Your task to perform on an android device: Clear the shopping cart on ebay.com. Search for "corsair k70" on ebay.com, select the first entry, add it to the cart, then select checkout. Image 0: 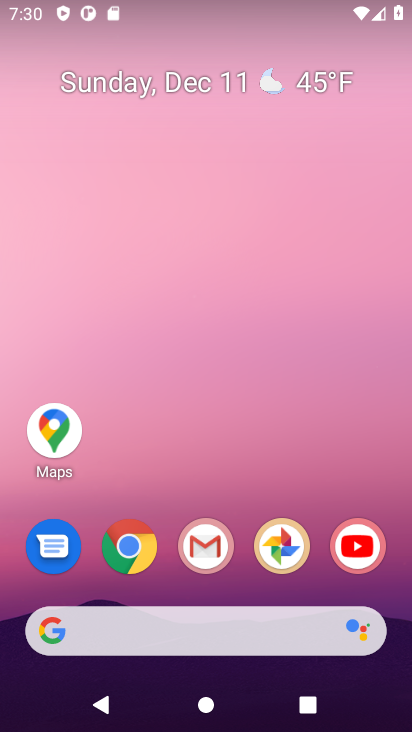
Step 0: click (134, 560)
Your task to perform on an android device: Clear the shopping cart on ebay.com. Search for "corsair k70" on ebay.com, select the first entry, add it to the cart, then select checkout. Image 1: 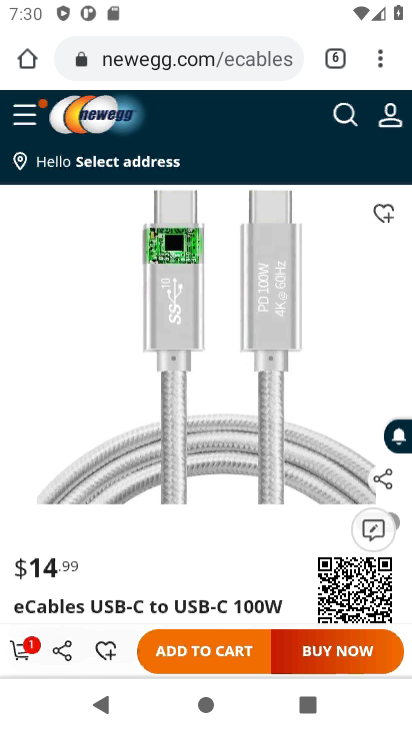
Step 1: click (257, 63)
Your task to perform on an android device: Clear the shopping cart on ebay.com. Search for "corsair k70" on ebay.com, select the first entry, add it to the cart, then select checkout. Image 2: 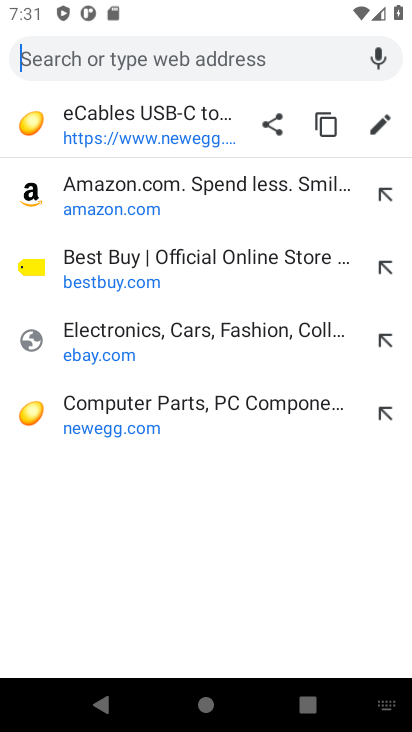
Step 2: click (153, 338)
Your task to perform on an android device: Clear the shopping cart on ebay.com. Search for "corsair k70" on ebay.com, select the first entry, add it to the cart, then select checkout. Image 3: 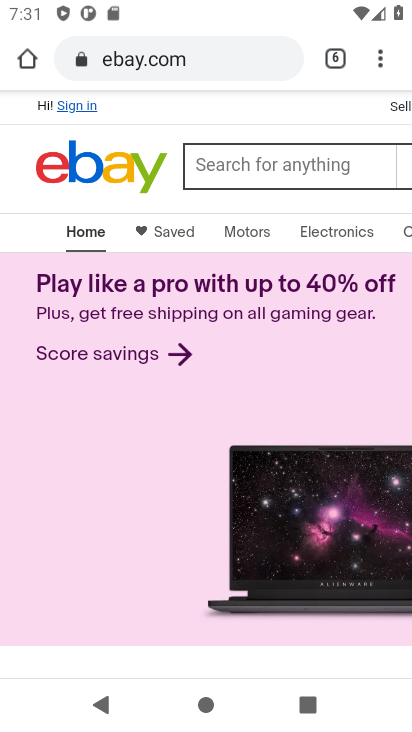
Step 3: drag from (360, 257) to (2, 261)
Your task to perform on an android device: Clear the shopping cart on ebay.com. Search for "corsair k70" on ebay.com, select the first entry, add it to the cart, then select checkout. Image 4: 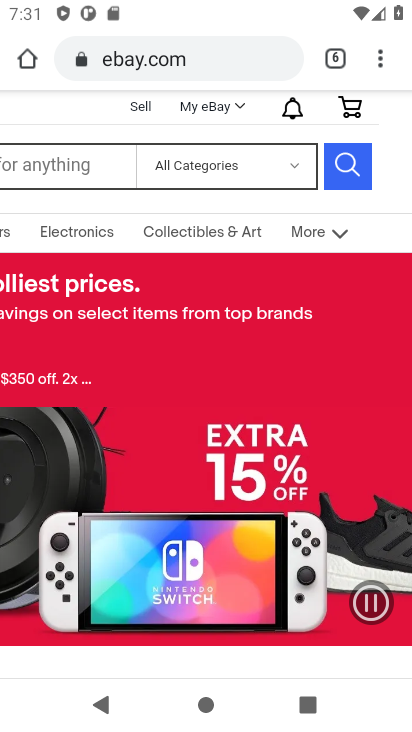
Step 4: click (348, 106)
Your task to perform on an android device: Clear the shopping cart on ebay.com. Search for "corsair k70" on ebay.com, select the first entry, add it to the cart, then select checkout. Image 5: 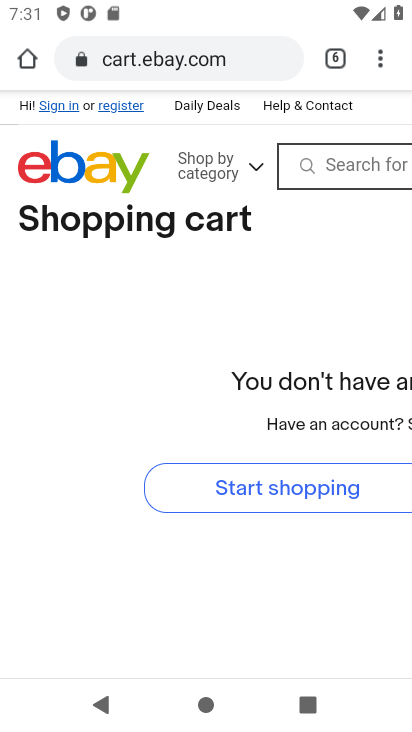
Step 5: click (326, 169)
Your task to perform on an android device: Clear the shopping cart on ebay.com. Search for "corsair k70" on ebay.com, select the first entry, add it to the cart, then select checkout. Image 6: 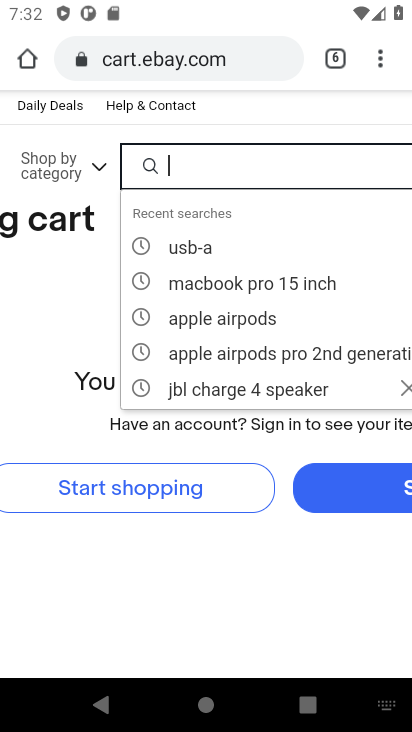
Step 6: type "corsair k70"
Your task to perform on an android device: Clear the shopping cart on ebay.com. Search for "corsair k70" on ebay.com, select the first entry, add it to the cart, then select checkout. Image 7: 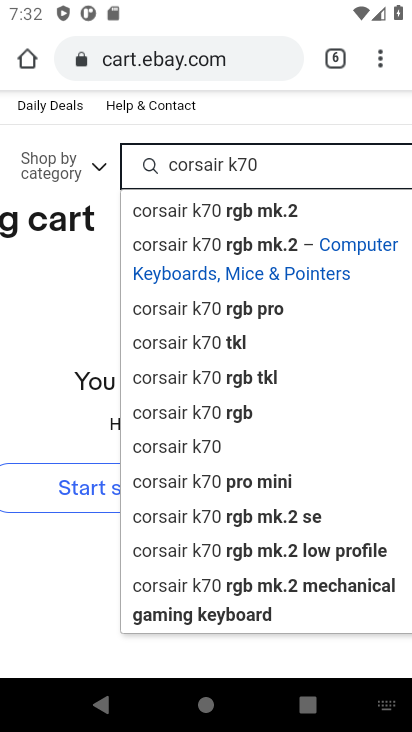
Step 7: click (216, 215)
Your task to perform on an android device: Clear the shopping cart on ebay.com. Search for "corsair k70" on ebay.com, select the first entry, add it to the cart, then select checkout. Image 8: 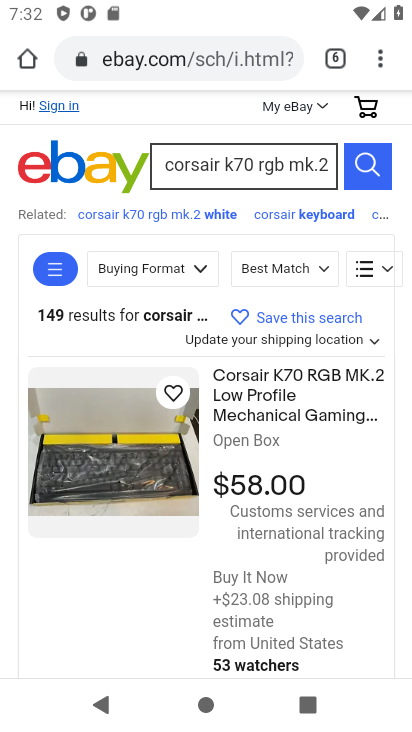
Step 8: drag from (131, 613) to (193, 384)
Your task to perform on an android device: Clear the shopping cart on ebay.com. Search for "corsair k70" on ebay.com, select the first entry, add it to the cart, then select checkout. Image 9: 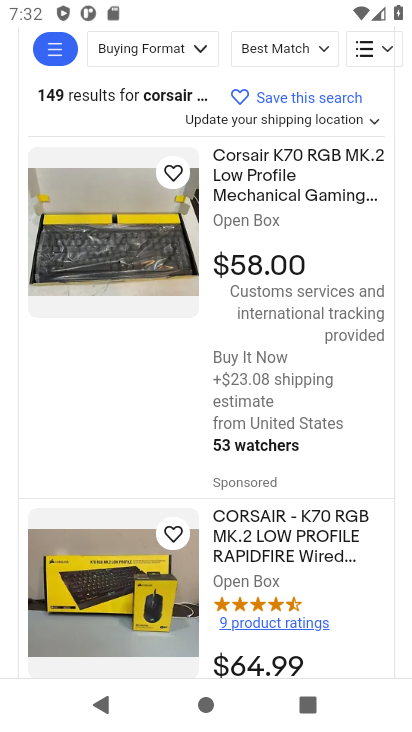
Step 9: click (276, 189)
Your task to perform on an android device: Clear the shopping cart on ebay.com. Search for "corsair k70" on ebay.com, select the first entry, add it to the cart, then select checkout. Image 10: 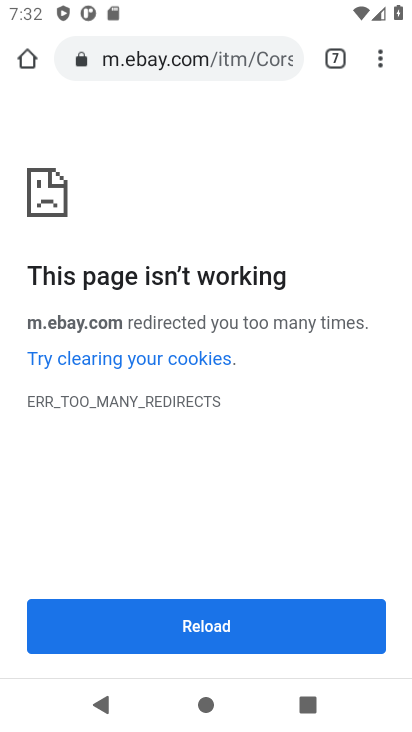
Step 10: click (314, 627)
Your task to perform on an android device: Clear the shopping cart on ebay.com. Search for "corsair k70" on ebay.com, select the first entry, add it to the cart, then select checkout. Image 11: 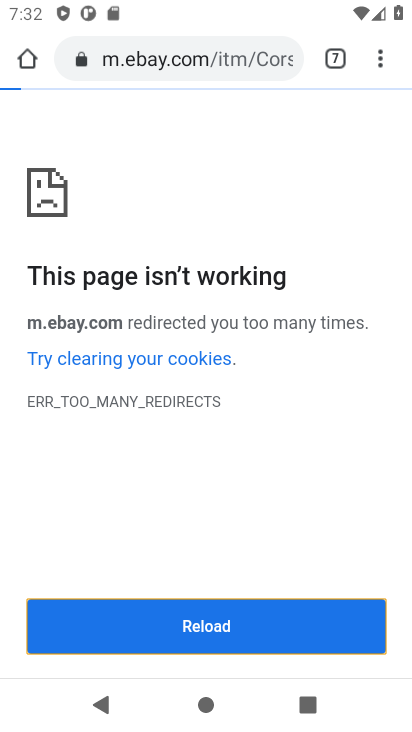
Step 11: task complete